Your task to perform on an android device: Look up the best selling books on Goodreads. Image 0: 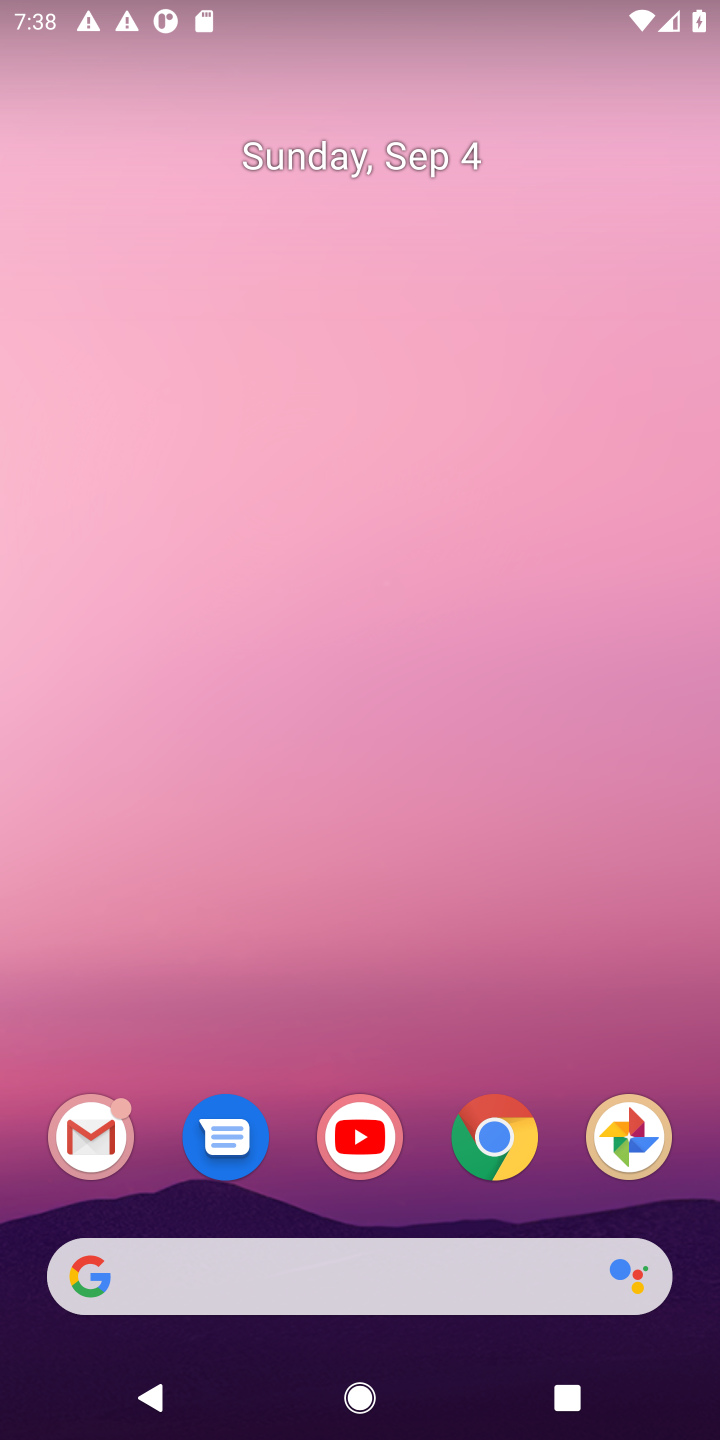
Step 0: click (492, 1142)
Your task to perform on an android device: Look up the best selling books on Goodreads. Image 1: 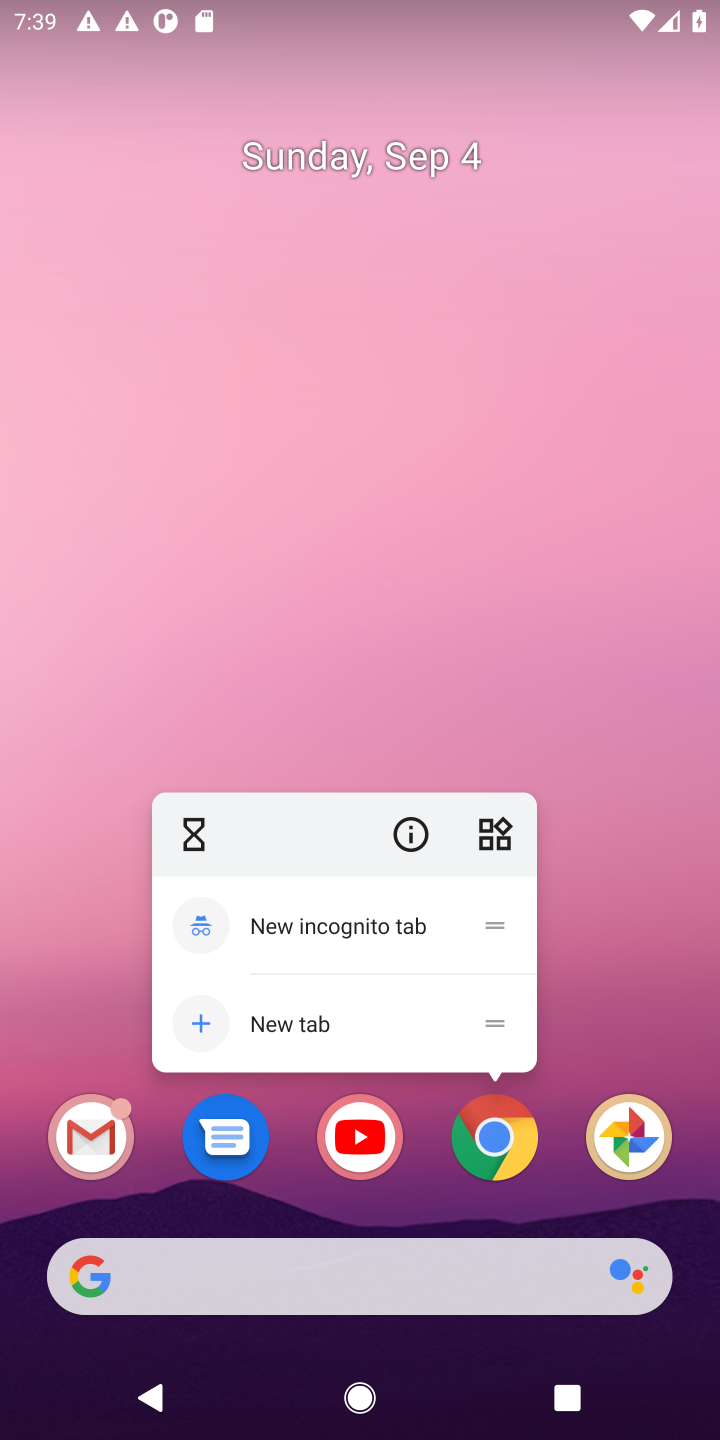
Step 1: click (491, 1134)
Your task to perform on an android device: Look up the best selling books on Goodreads. Image 2: 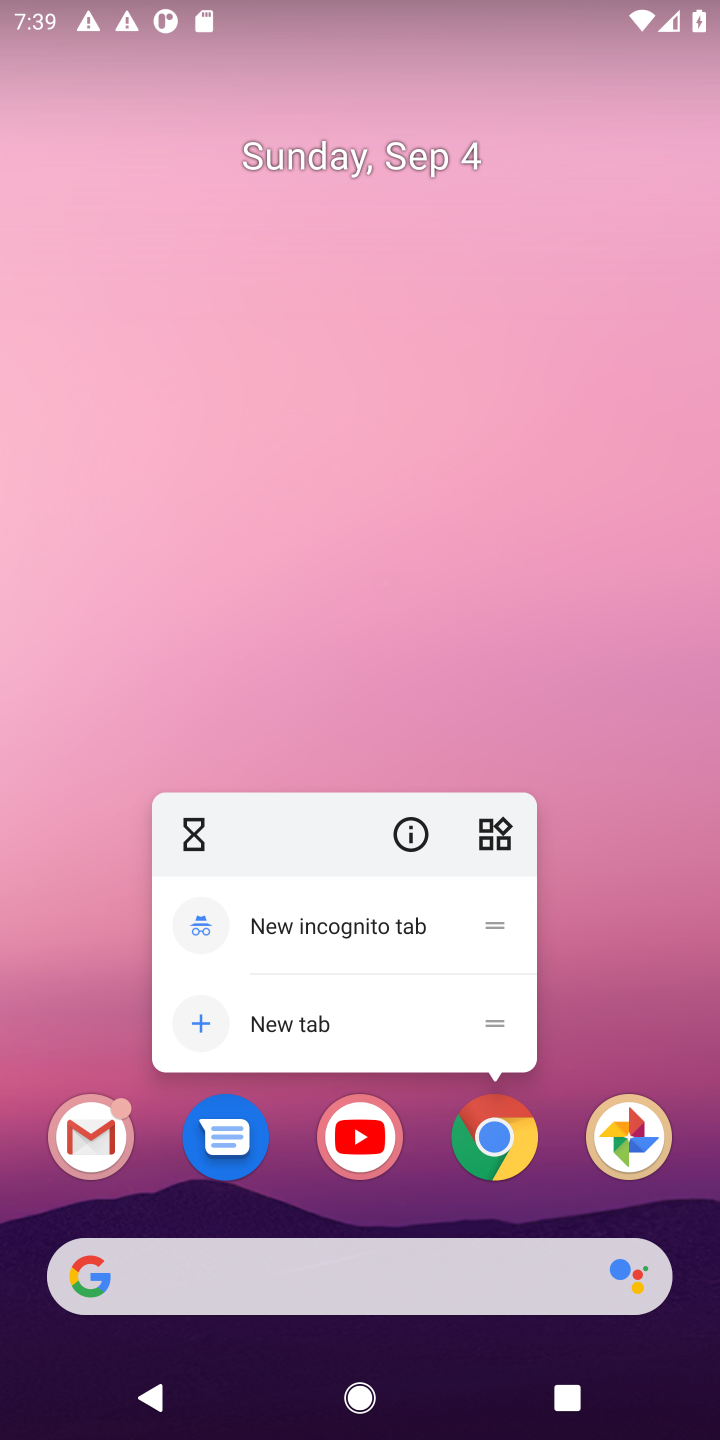
Step 2: click (496, 1137)
Your task to perform on an android device: Look up the best selling books on Goodreads. Image 3: 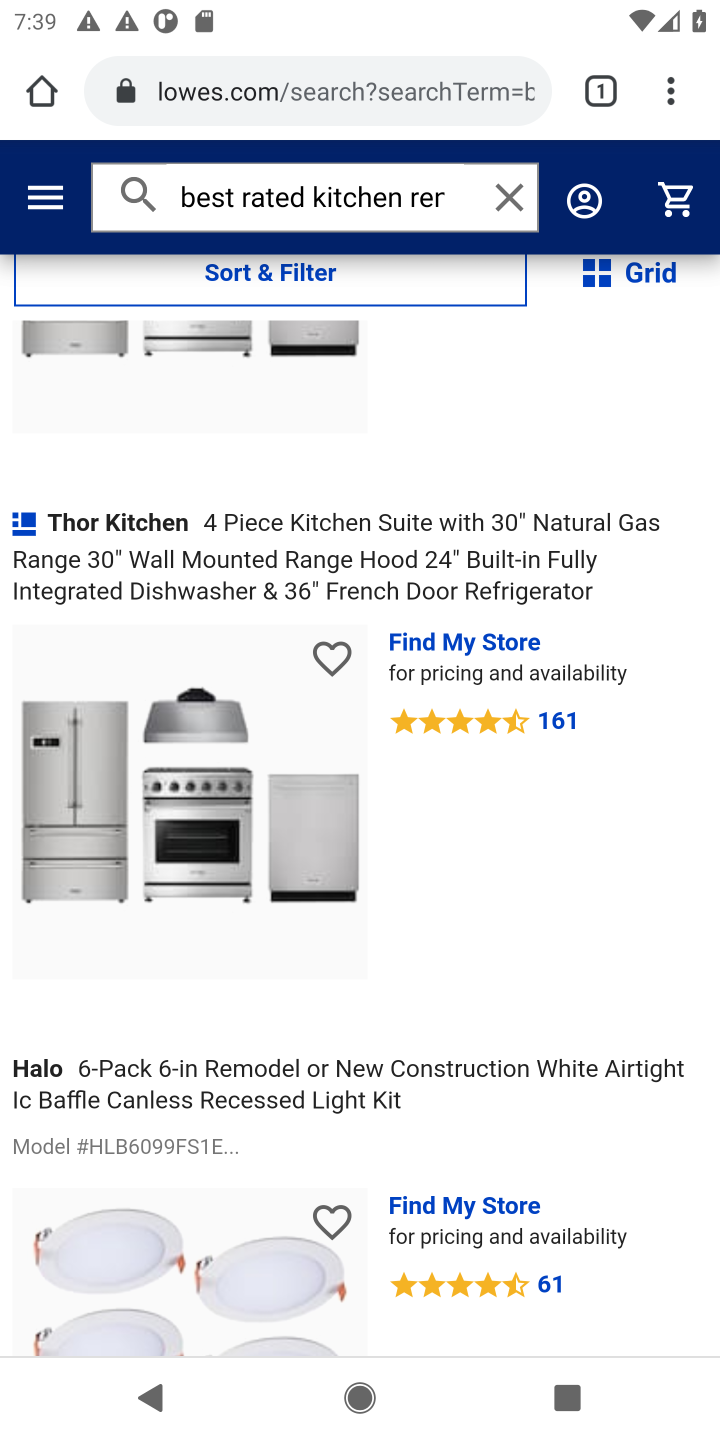
Step 3: click (484, 92)
Your task to perform on an android device: Look up the best selling books on Goodreads. Image 4: 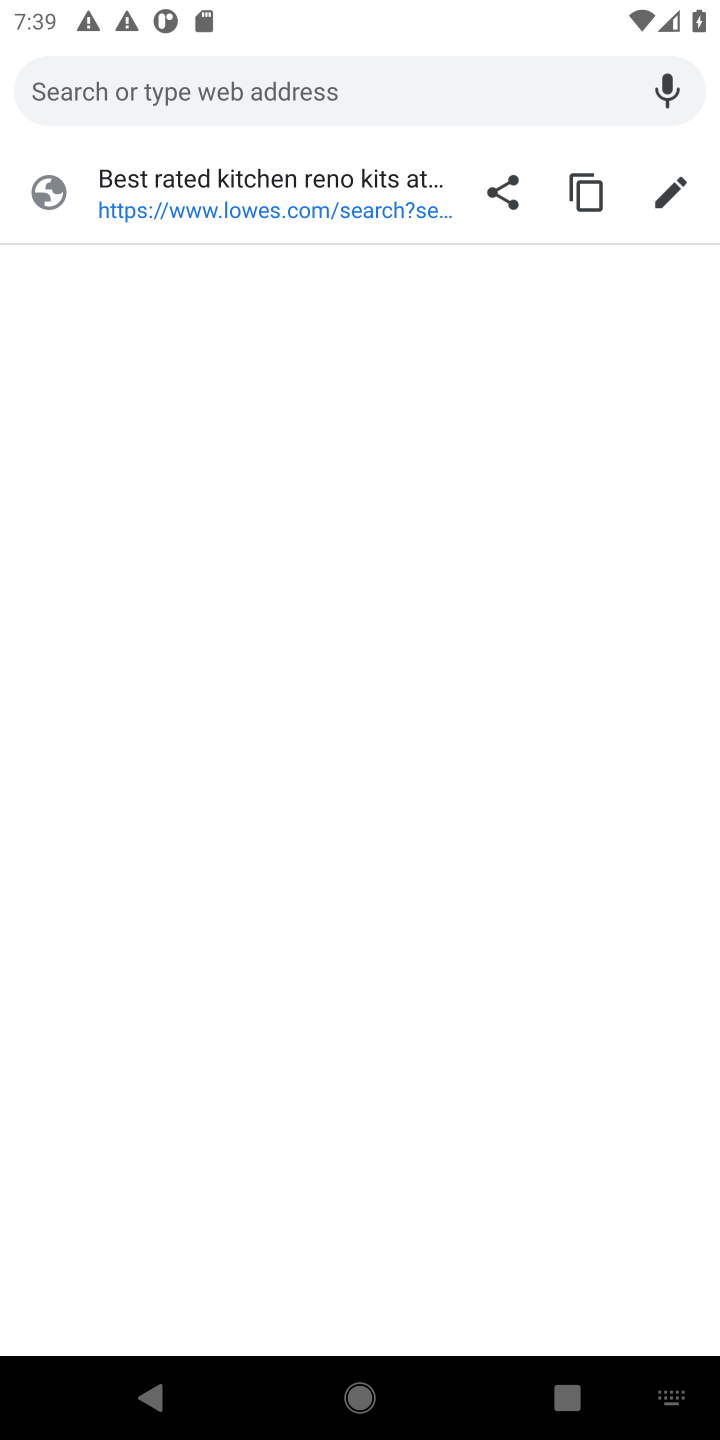
Step 4: type "Goodreads"
Your task to perform on an android device: Look up the best selling books on Goodreads. Image 5: 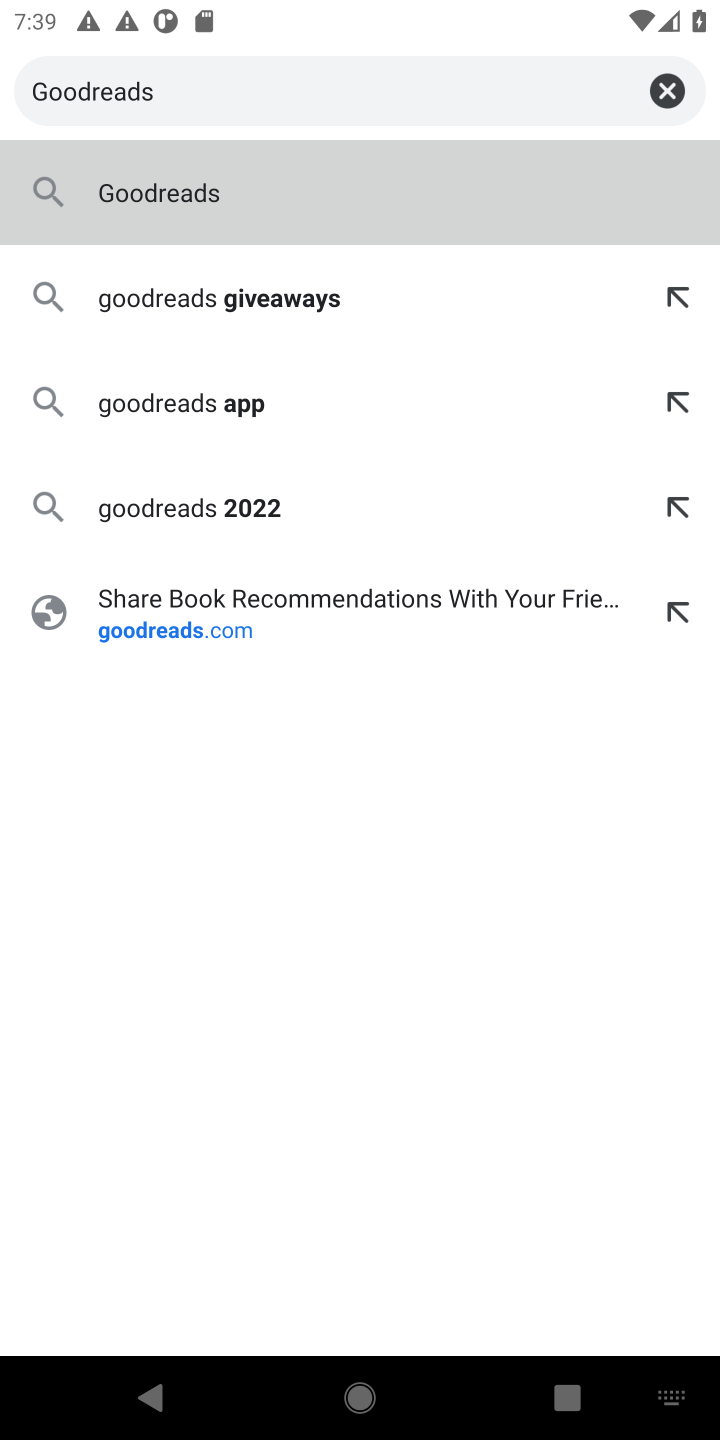
Step 5: click (159, 201)
Your task to perform on an android device: Look up the best selling books on Goodreads. Image 6: 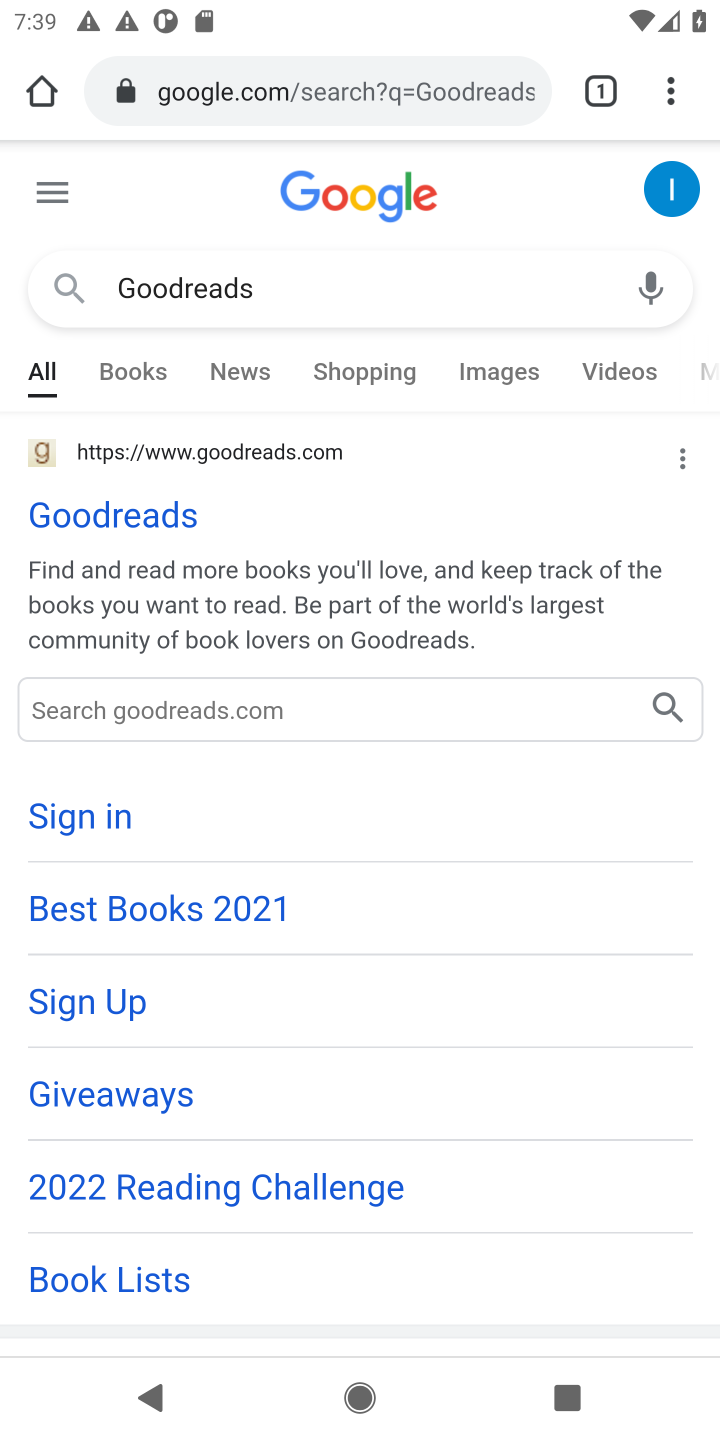
Step 6: click (158, 515)
Your task to perform on an android device: Look up the best selling books on Goodreads. Image 7: 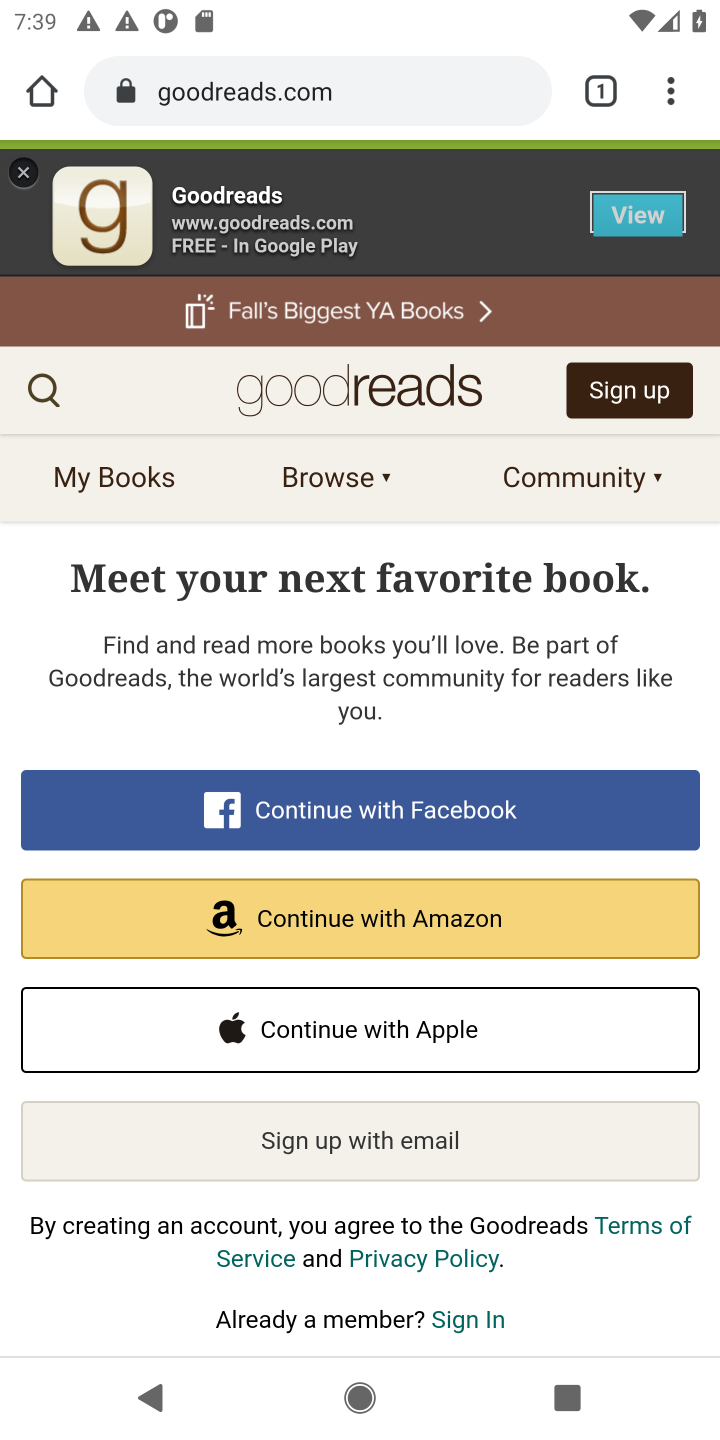
Step 7: click (39, 392)
Your task to perform on an android device: Look up the best selling books on Goodreads. Image 8: 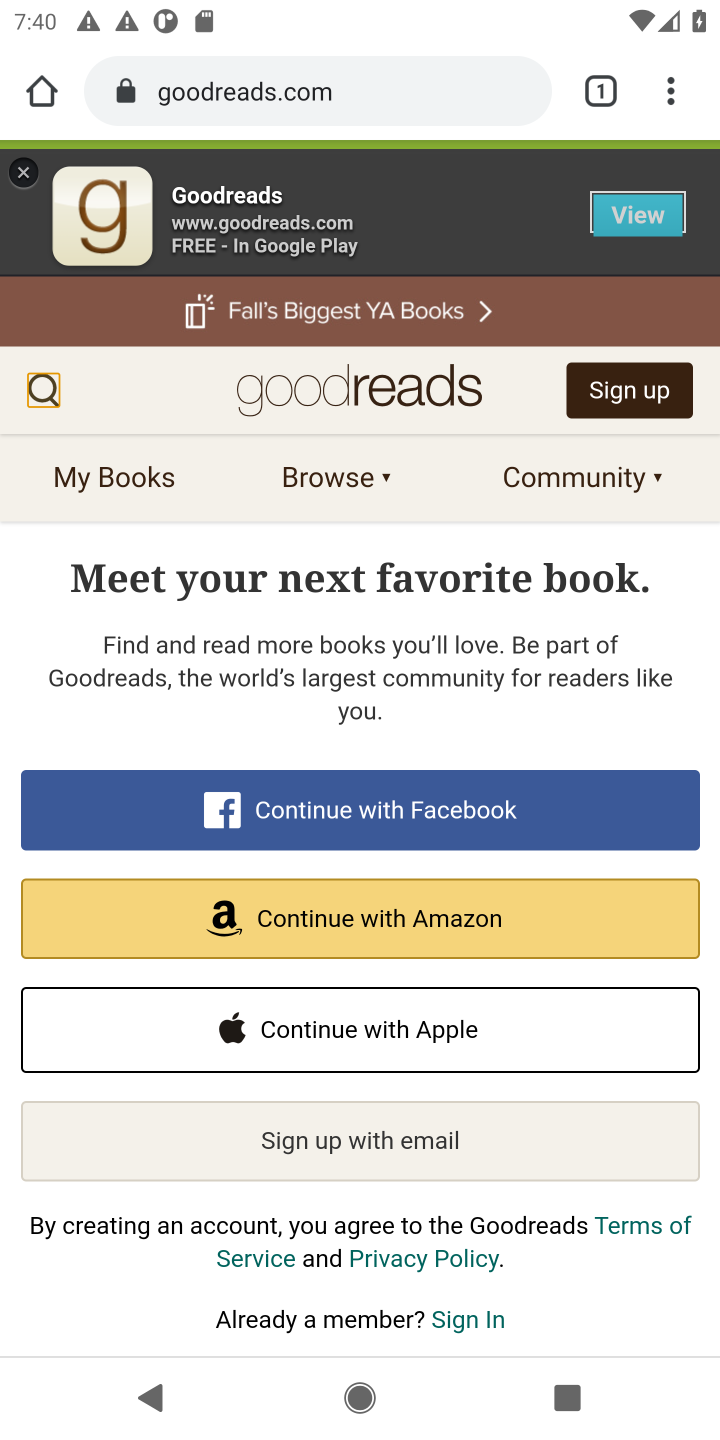
Step 8: click (185, 391)
Your task to perform on an android device: Look up the best selling books on Goodreads. Image 9: 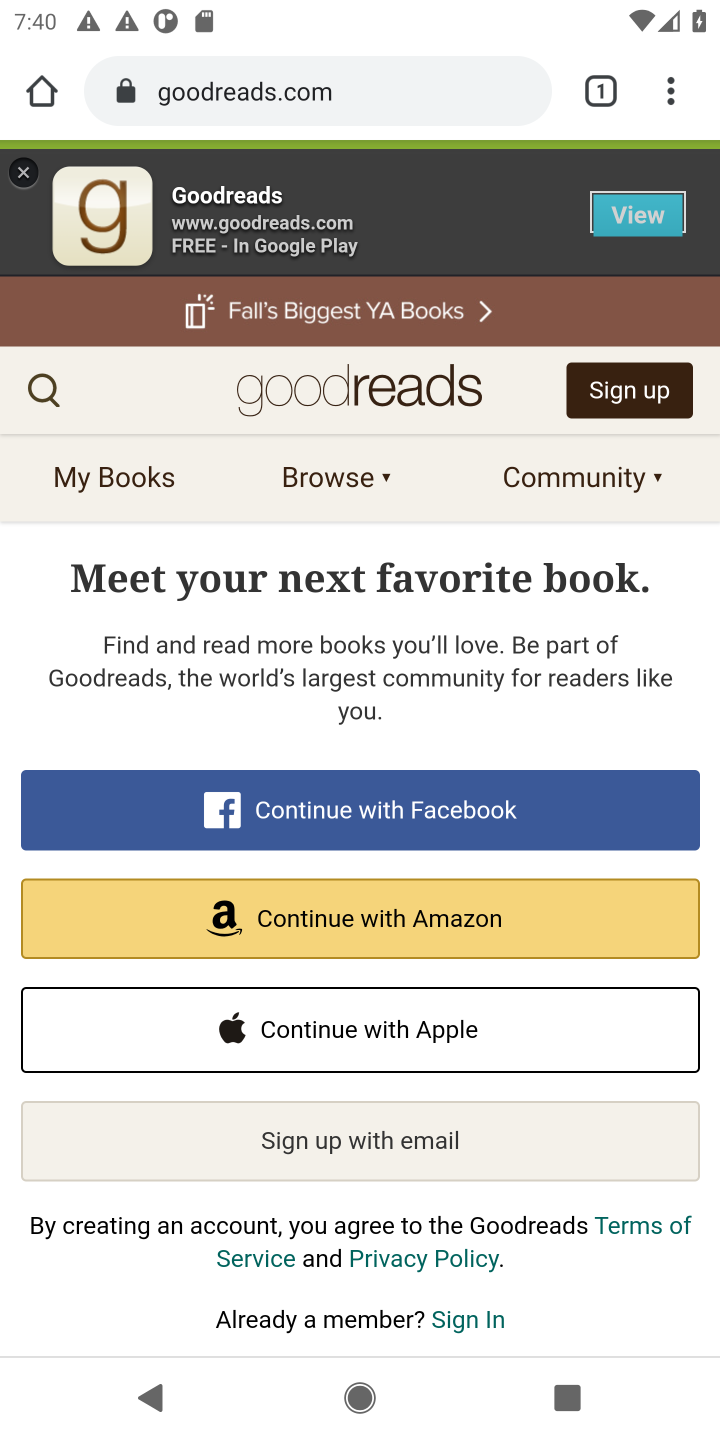
Step 9: click (324, 390)
Your task to perform on an android device: Look up the best selling books on Goodreads. Image 10: 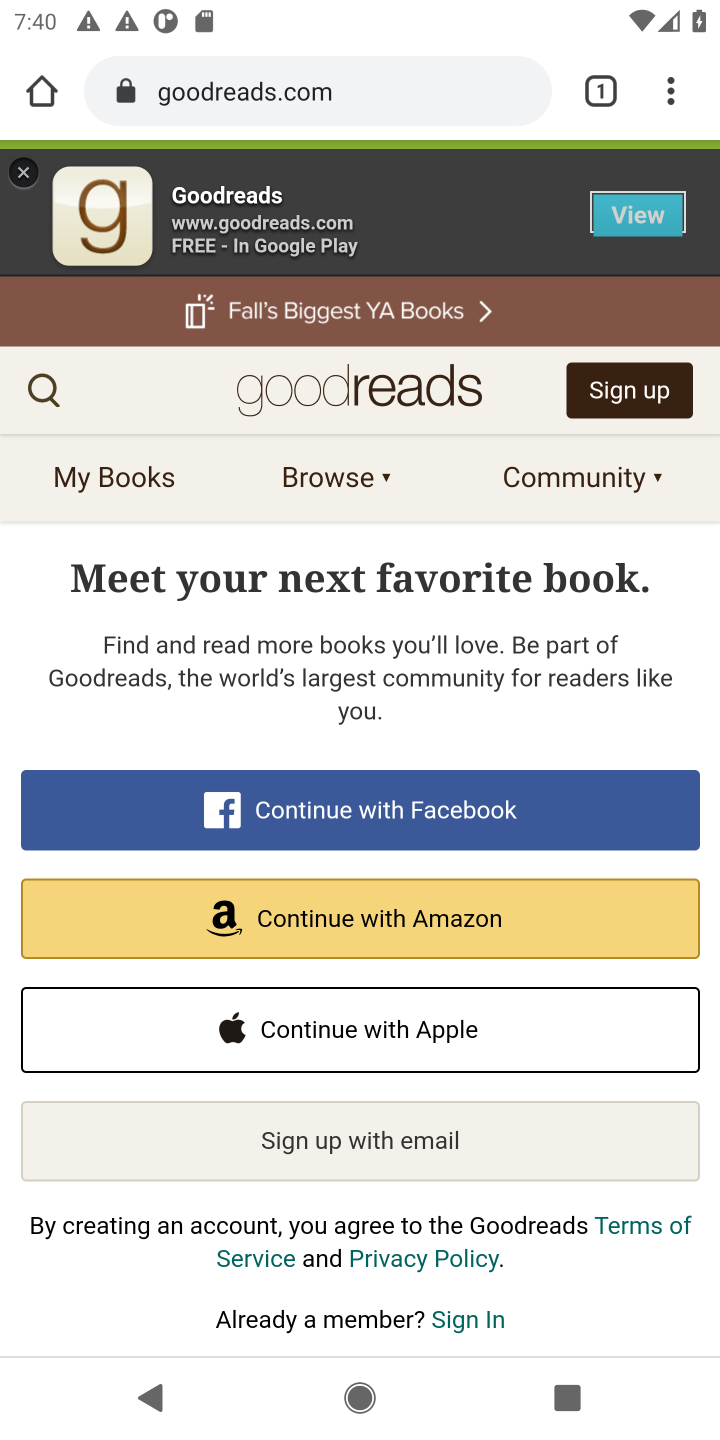
Step 10: click (44, 394)
Your task to perform on an android device: Look up the best selling books on Goodreads. Image 11: 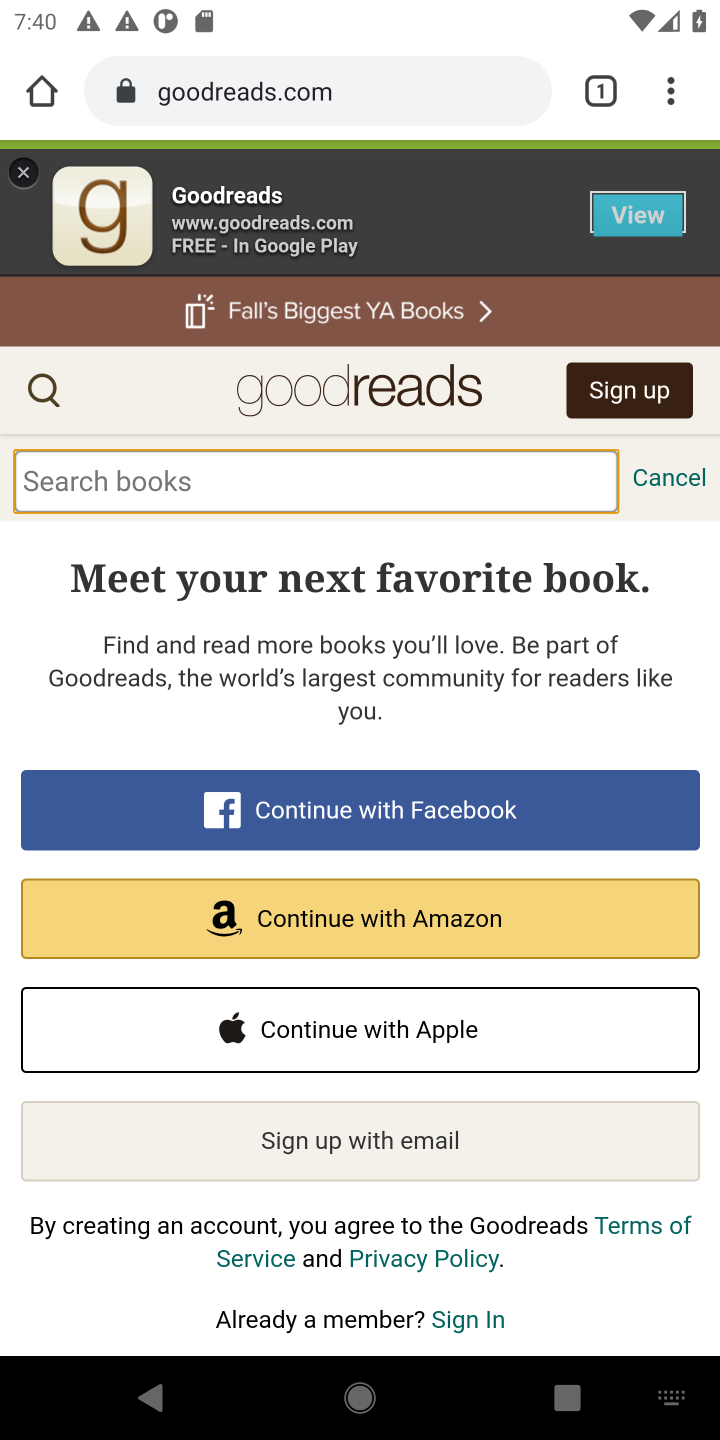
Step 11: click (149, 485)
Your task to perform on an android device: Look up the best selling books on Goodreads. Image 12: 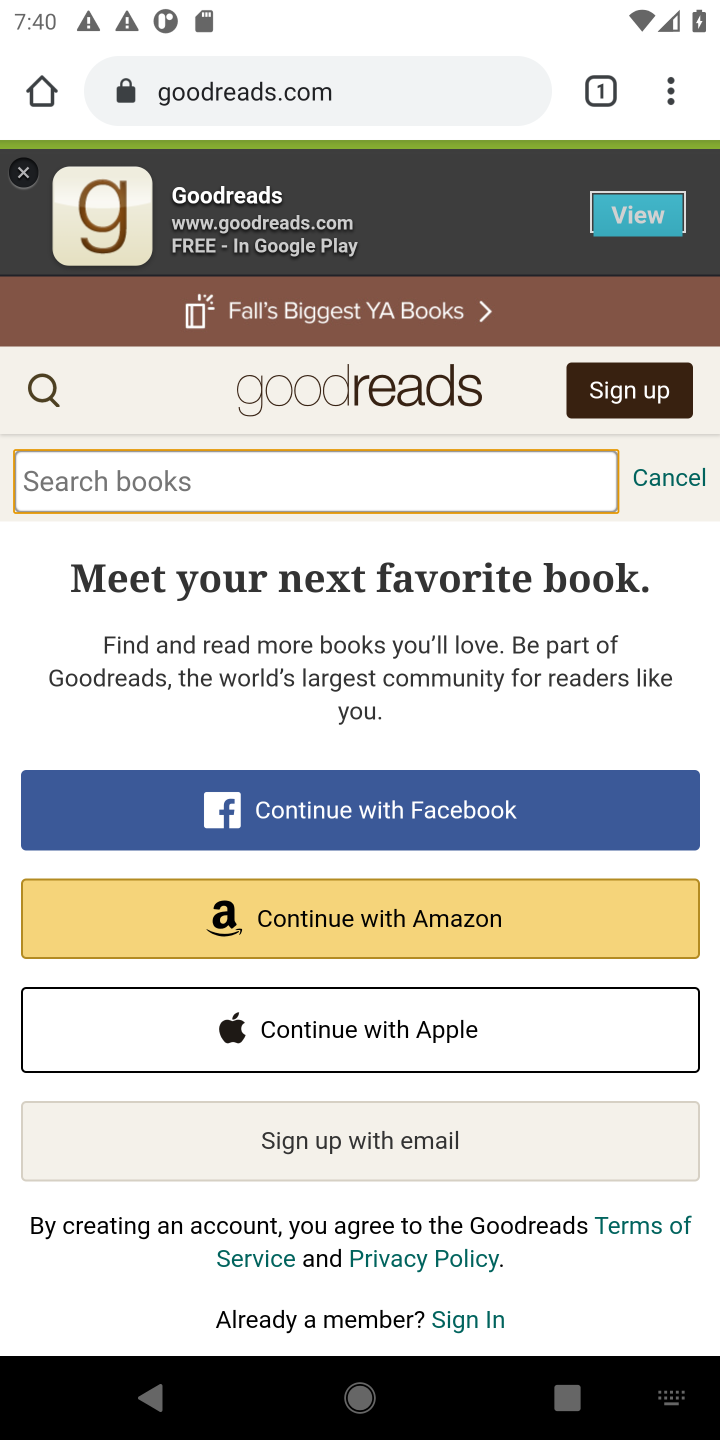
Step 12: type "best selling books"
Your task to perform on an android device: Look up the best selling books on Goodreads. Image 13: 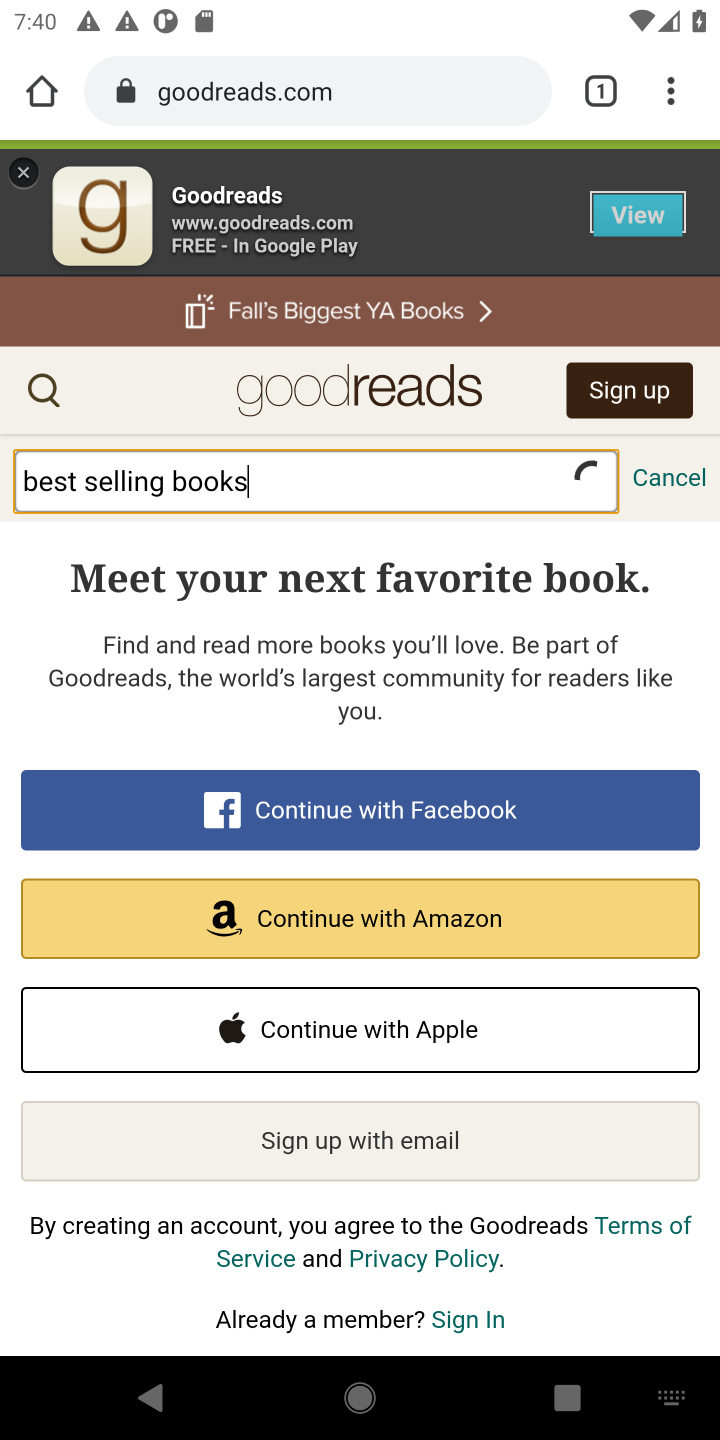
Step 13: type ""
Your task to perform on an android device: Look up the best selling books on Goodreads. Image 14: 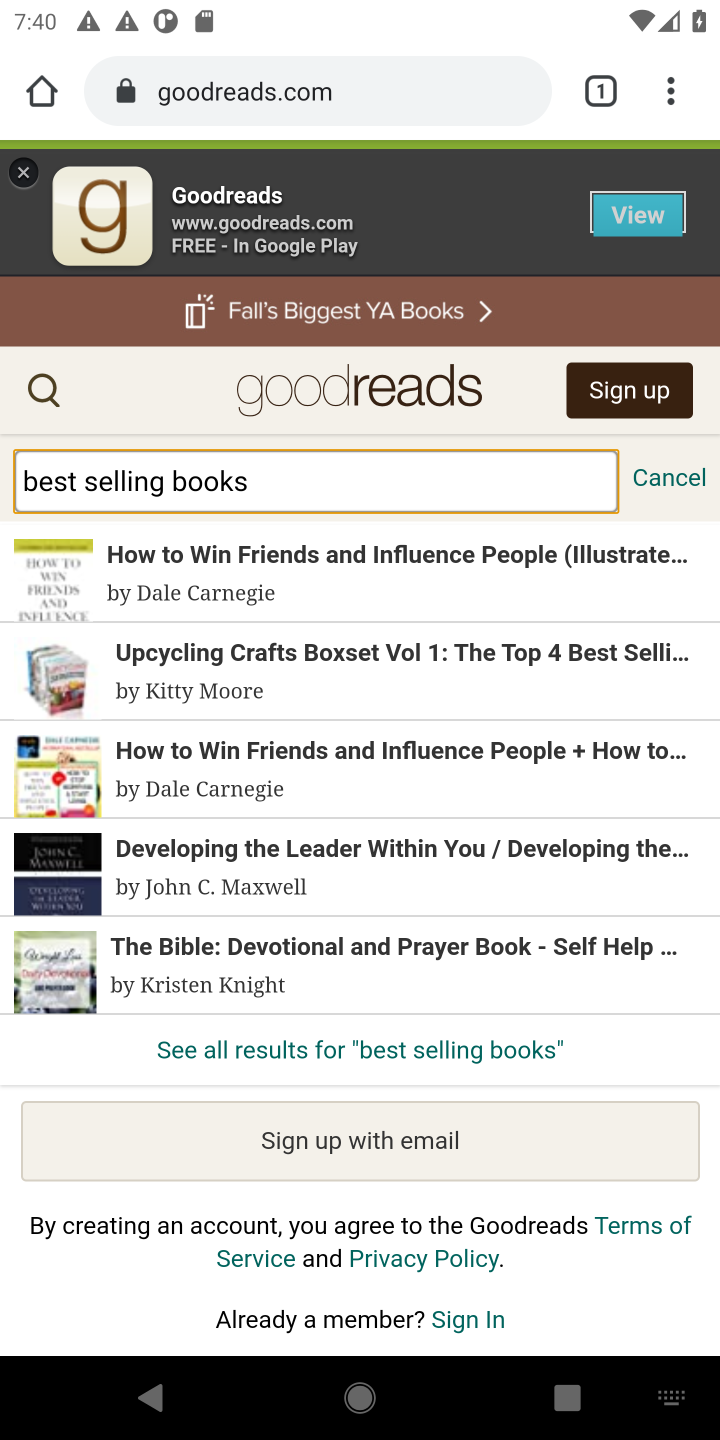
Step 14: click (302, 1039)
Your task to perform on an android device: Look up the best selling books on Goodreads. Image 15: 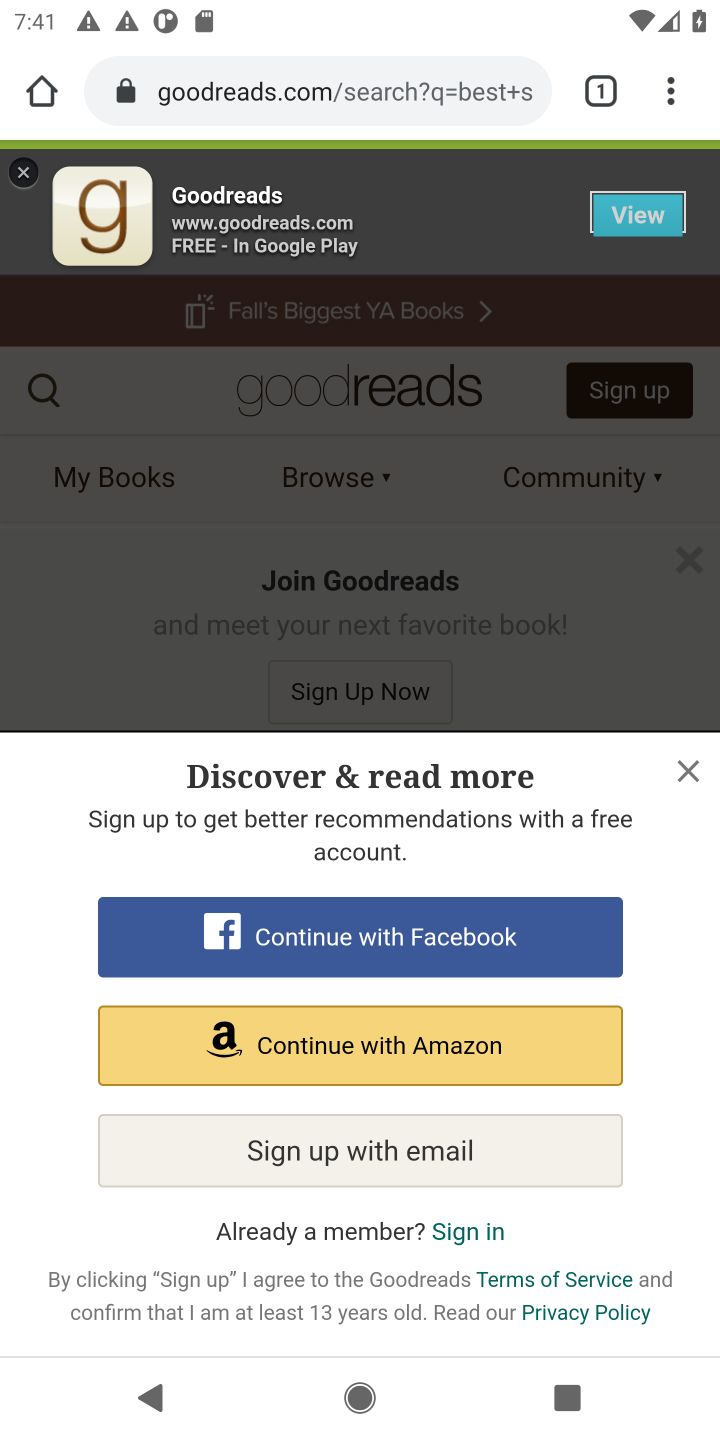
Step 15: click (679, 750)
Your task to perform on an android device: Look up the best selling books on Goodreads. Image 16: 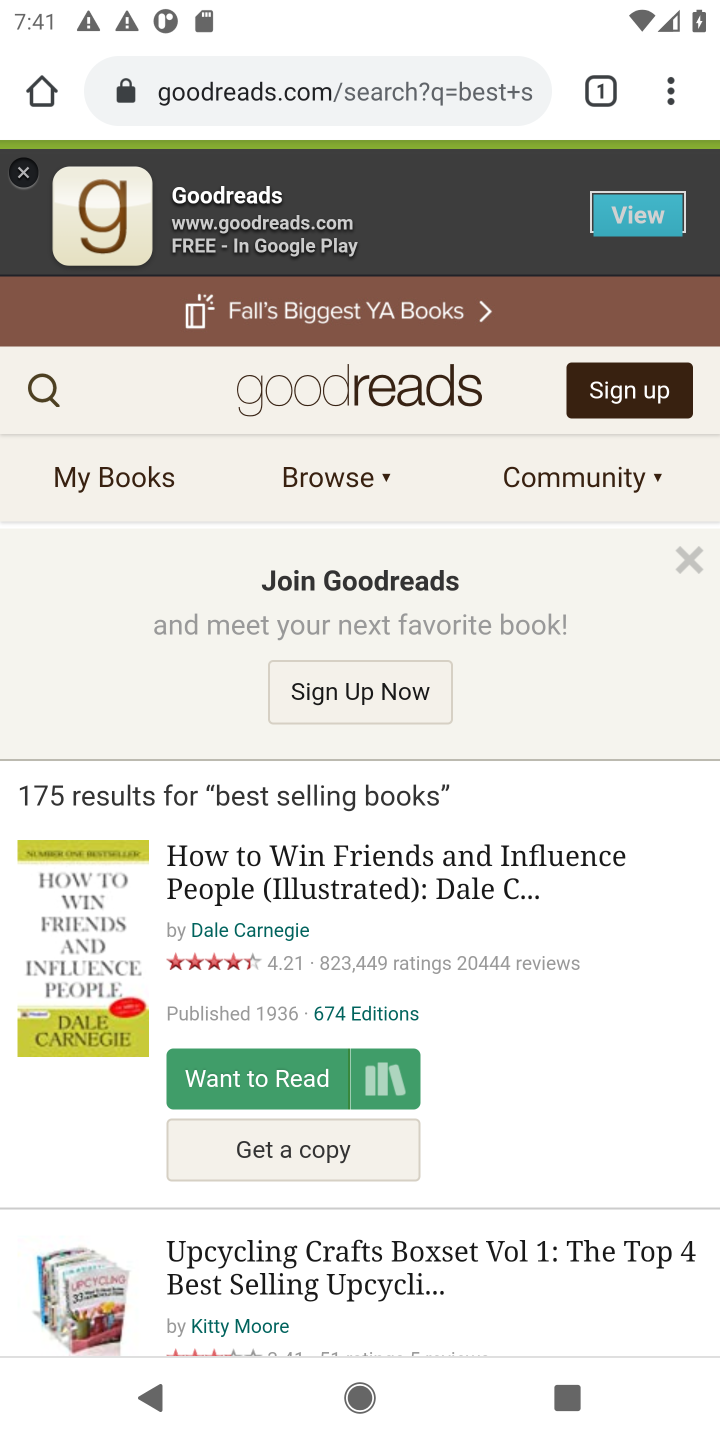
Step 16: drag from (484, 1165) to (592, 932)
Your task to perform on an android device: Look up the best selling books on Goodreads. Image 17: 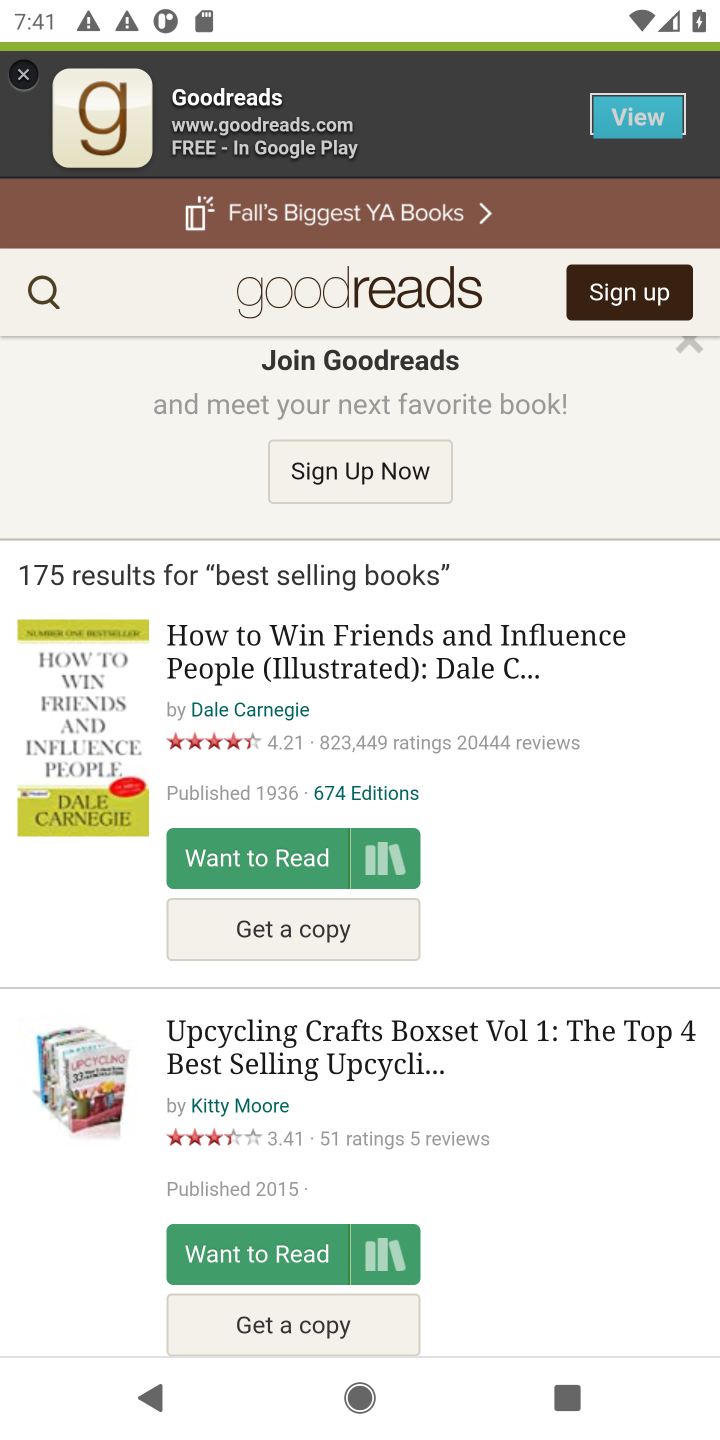
Step 17: drag from (551, 1175) to (611, 699)
Your task to perform on an android device: Look up the best selling books on Goodreads. Image 18: 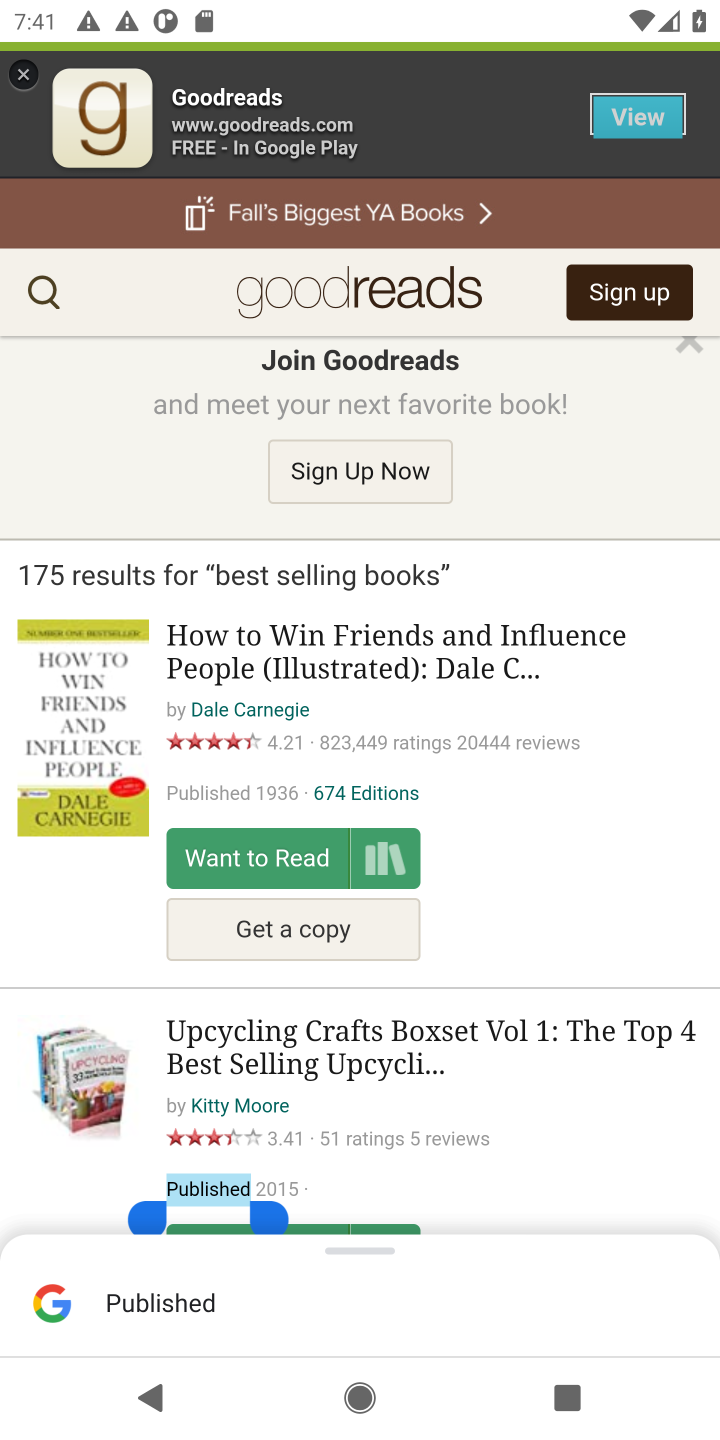
Step 18: click (575, 928)
Your task to perform on an android device: Look up the best selling books on Goodreads. Image 19: 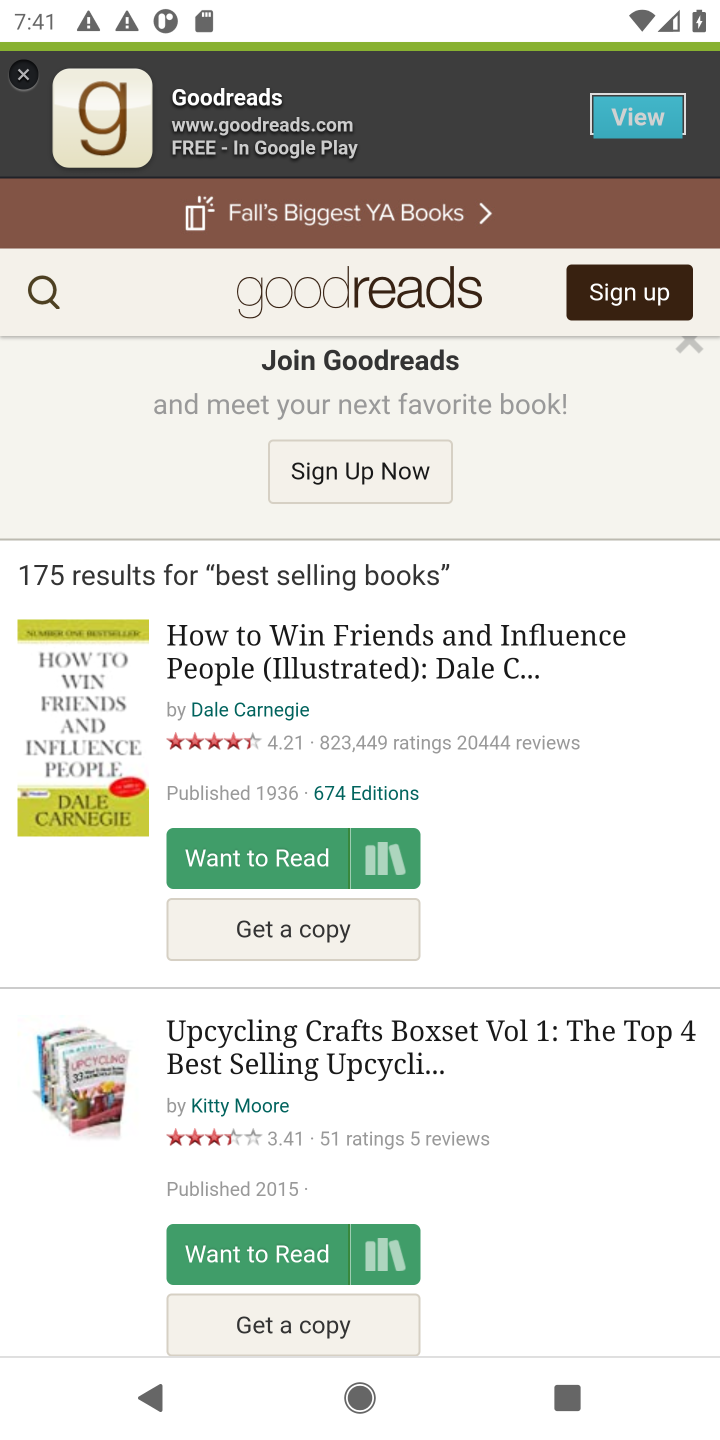
Step 19: task complete